Your task to perform on an android device: toggle improve location accuracy Image 0: 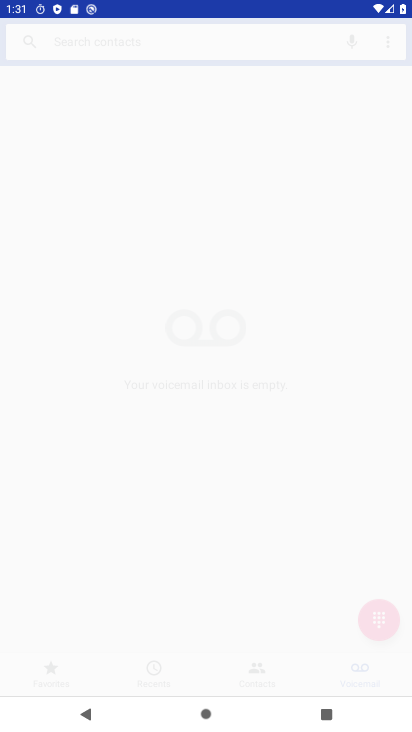
Step 0: click (131, 606)
Your task to perform on an android device: toggle improve location accuracy Image 1: 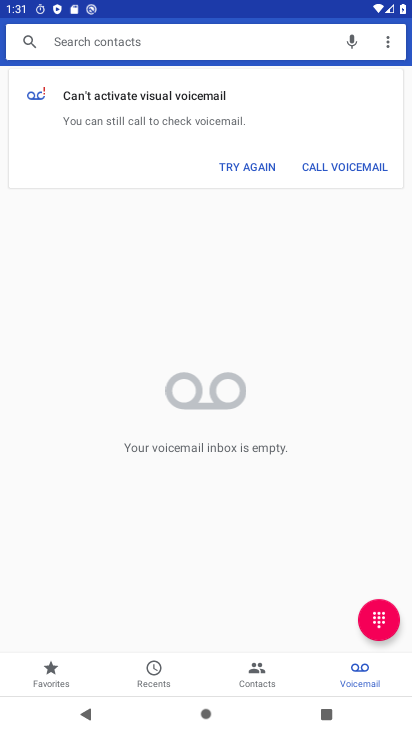
Step 1: press home button
Your task to perform on an android device: toggle improve location accuracy Image 2: 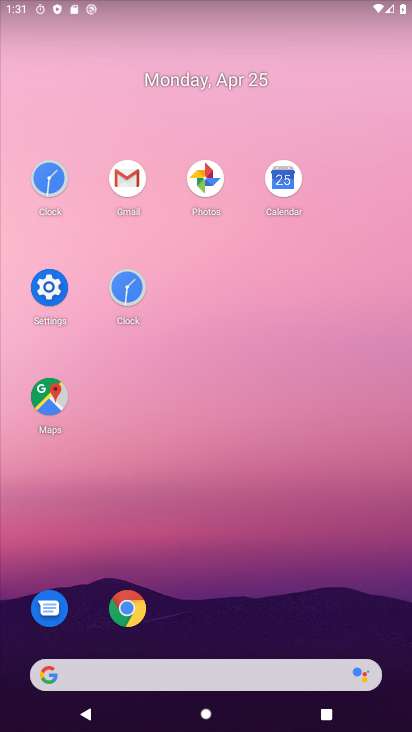
Step 2: click (54, 281)
Your task to perform on an android device: toggle improve location accuracy Image 3: 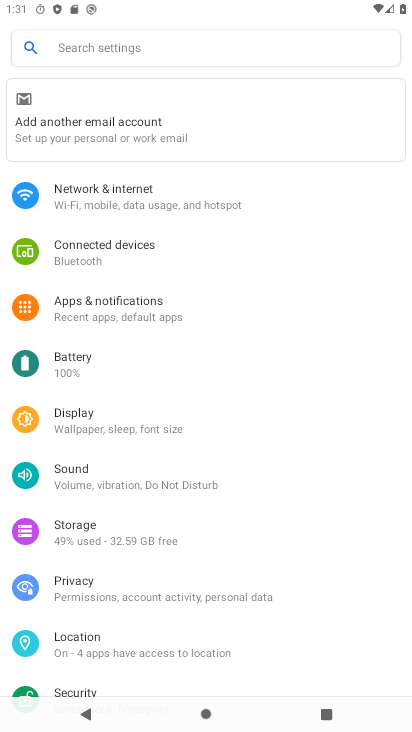
Step 3: click (130, 644)
Your task to perform on an android device: toggle improve location accuracy Image 4: 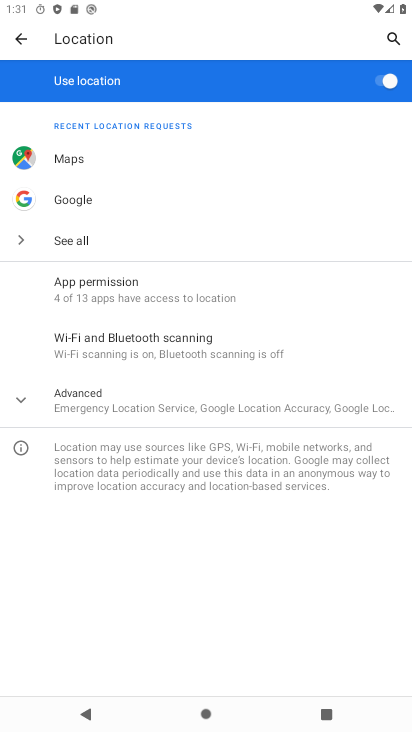
Step 4: click (134, 404)
Your task to perform on an android device: toggle improve location accuracy Image 5: 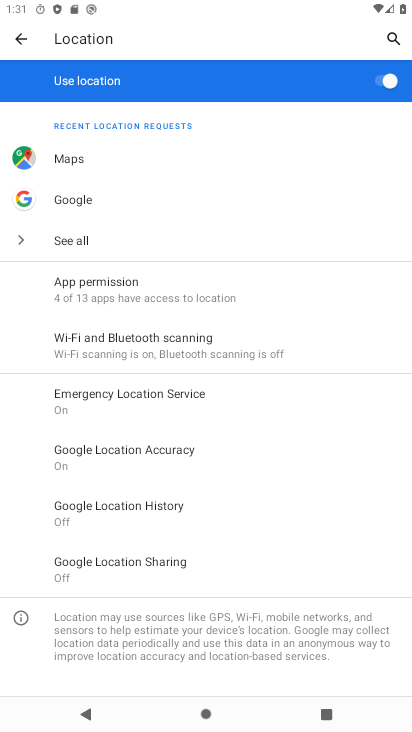
Step 5: click (176, 443)
Your task to perform on an android device: toggle improve location accuracy Image 6: 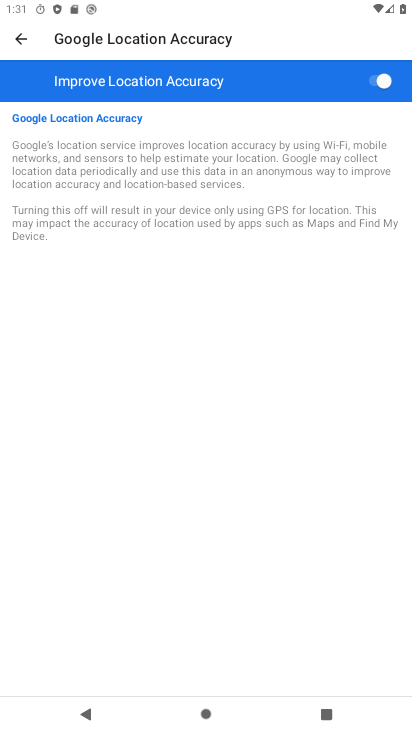
Step 6: click (380, 83)
Your task to perform on an android device: toggle improve location accuracy Image 7: 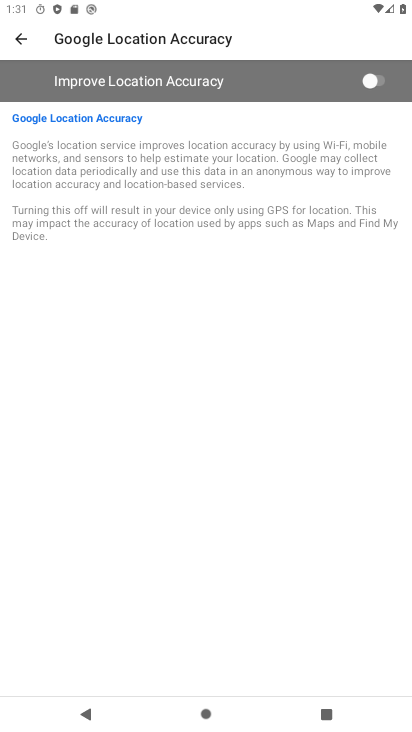
Step 7: task complete